Your task to perform on an android device: change your default location settings in chrome Image 0: 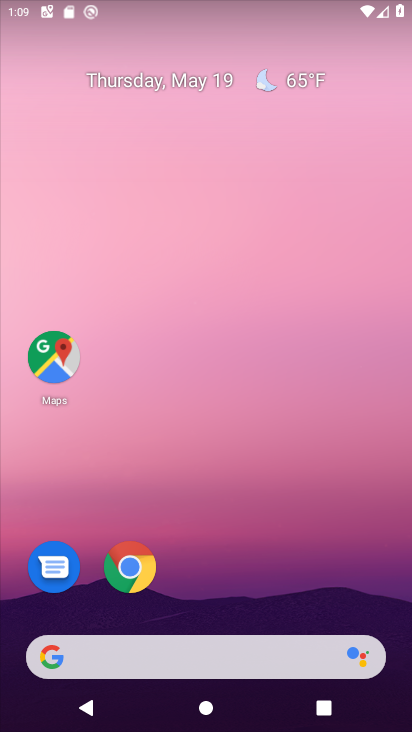
Step 0: drag from (260, 495) to (277, 157)
Your task to perform on an android device: change your default location settings in chrome Image 1: 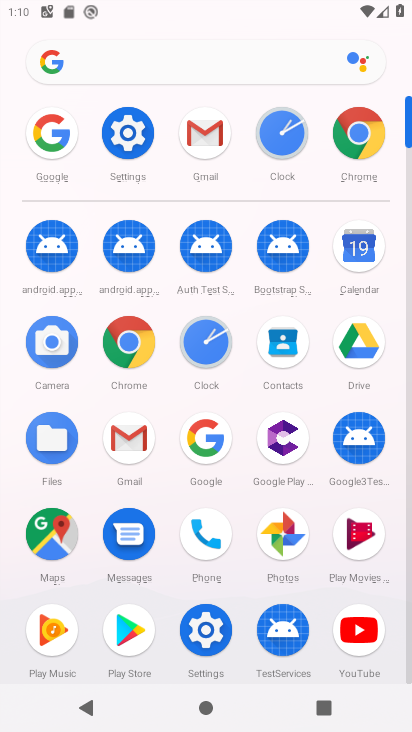
Step 1: click (135, 350)
Your task to perform on an android device: change your default location settings in chrome Image 2: 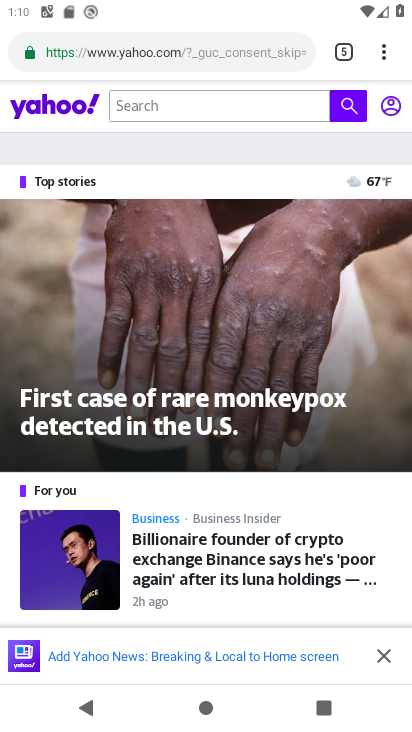
Step 2: click (379, 55)
Your task to perform on an android device: change your default location settings in chrome Image 3: 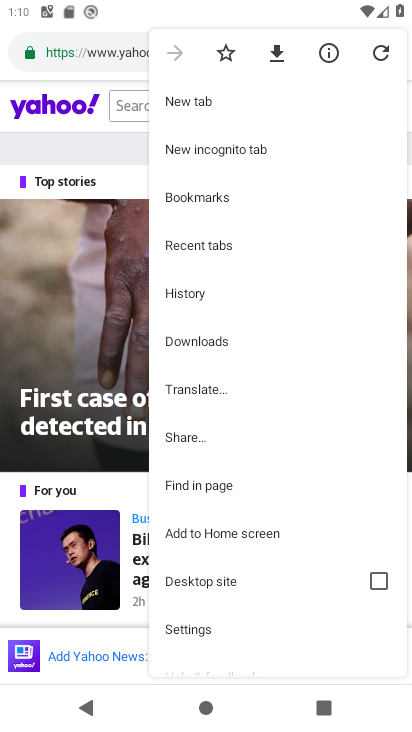
Step 3: drag from (355, 483) to (337, 221)
Your task to perform on an android device: change your default location settings in chrome Image 4: 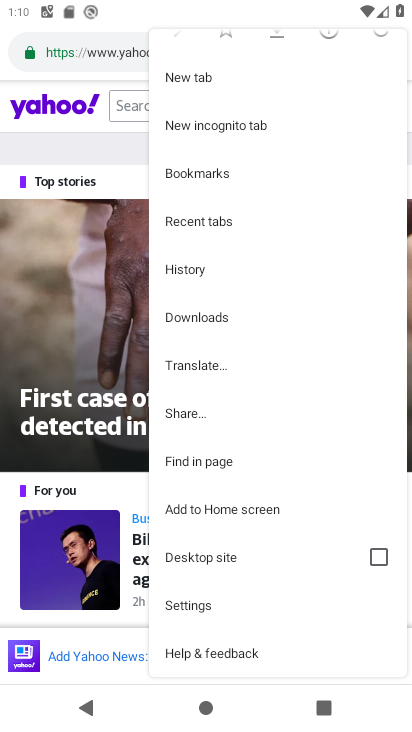
Step 4: click (215, 615)
Your task to perform on an android device: change your default location settings in chrome Image 5: 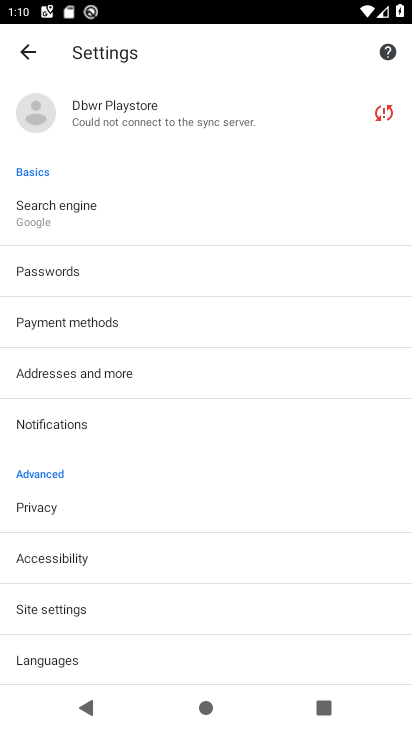
Step 5: drag from (244, 529) to (280, 258)
Your task to perform on an android device: change your default location settings in chrome Image 6: 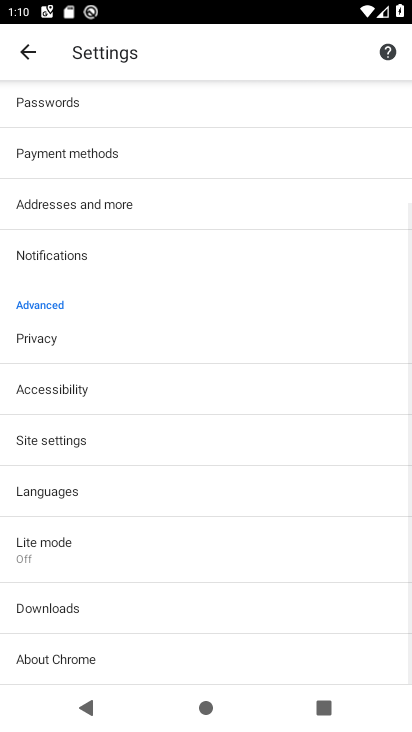
Step 6: drag from (229, 588) to (198, 342)
Your task to perform on an android device: change your default location settings in chrome Image 7: 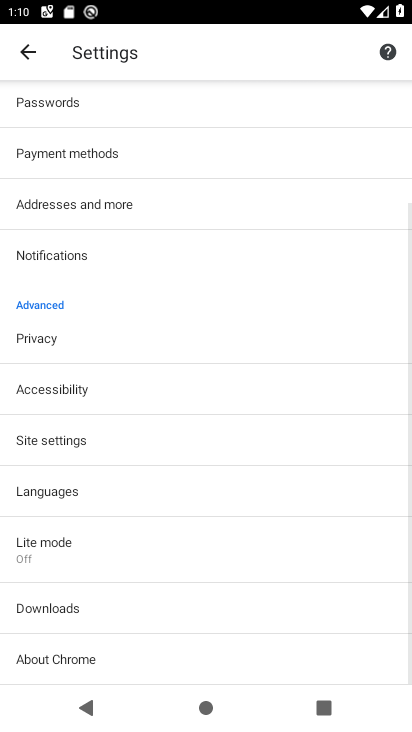
Step 7: click (163, 651)
Your task to perform on an android device: change your default location settings in chrome Image 8: 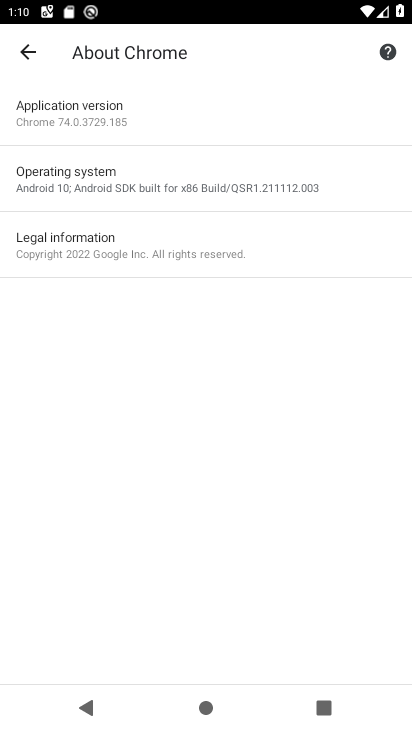
Step 8: press back button
Your task to perform on an android device: change your default location settings in chrome Image 9: 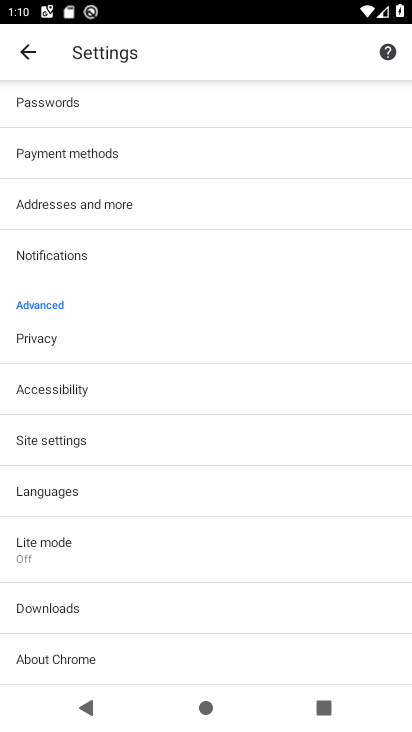
Step 9: click (75, 437)
Your task to perform on an android device: change your default location settings in chrome Image 10: 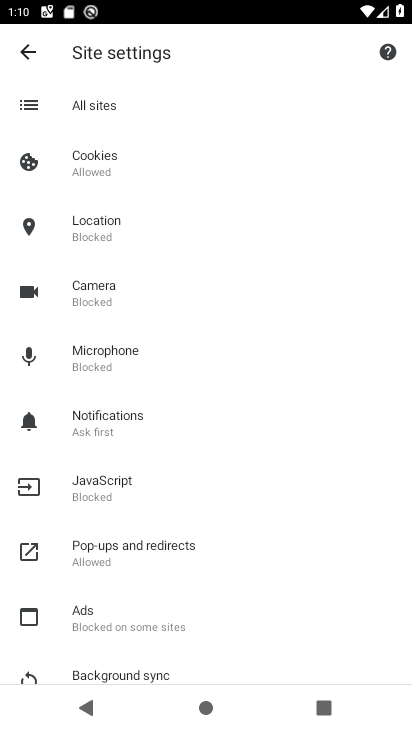
Step 10: drag from (318, 579) to (317, 389)
Your task to perform on an android device: change your default location settings in chrome Image 11: 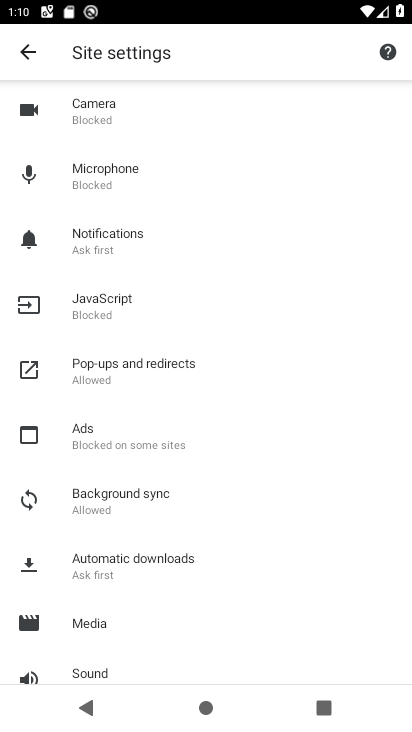
Step 11: drag from (347, 226) to (232, 575)
Your task to perform on an android device: change your default location settings in chrome Image 12: 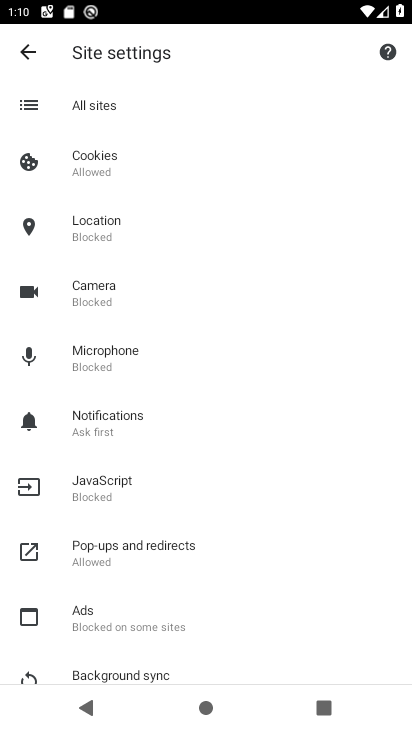
Step 12: click (122, 218)
Your task to perform on an android device: change your default location settings in chrome Image 13: 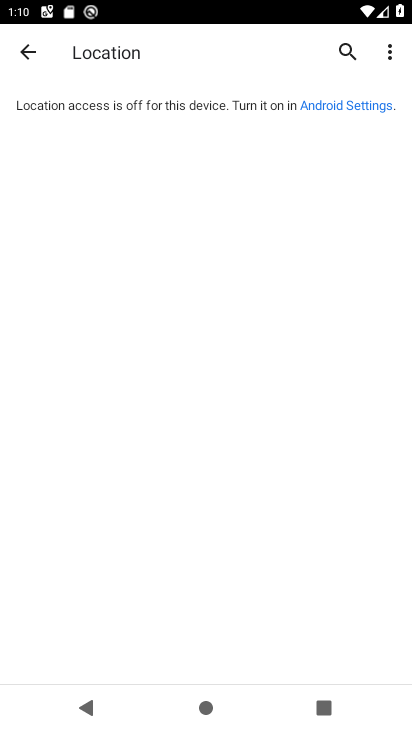
Step 13: click (397, 45)
Your task to perform on an android device: change your default location settings in chrome Image 14: 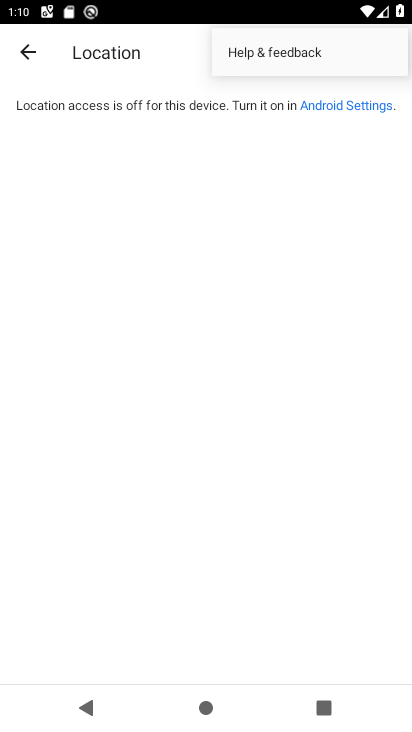
Step 14: task complete